Your task to perform on an android device: Clear all items from cart on ebay. Add "logitech g pro" to the cart on ebay, then select checkout. Image 0: 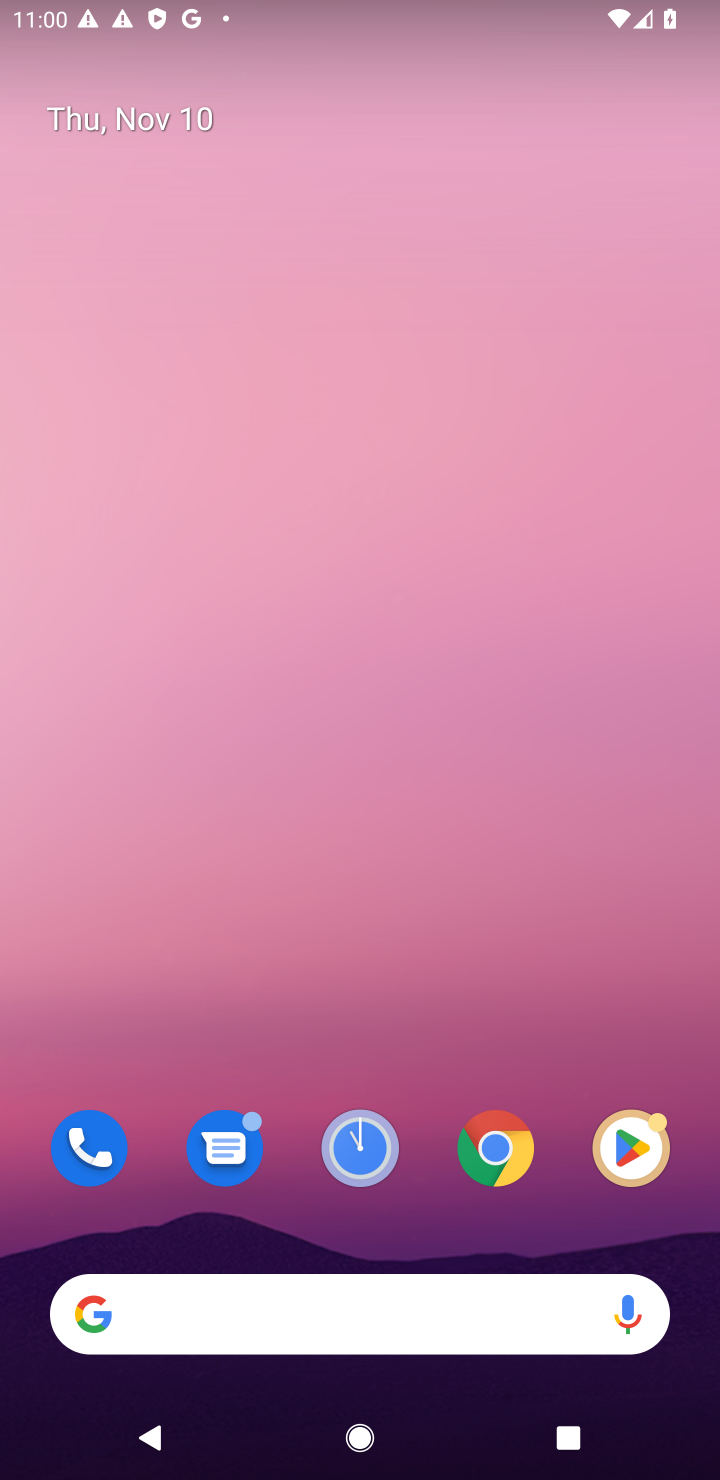
Step 0: click (520, 1131)
Your task to perform on an android device: Clear all items from cart on ebay. Add "logitech g pro" to the cart on ebay, then select checkout. Image 1: 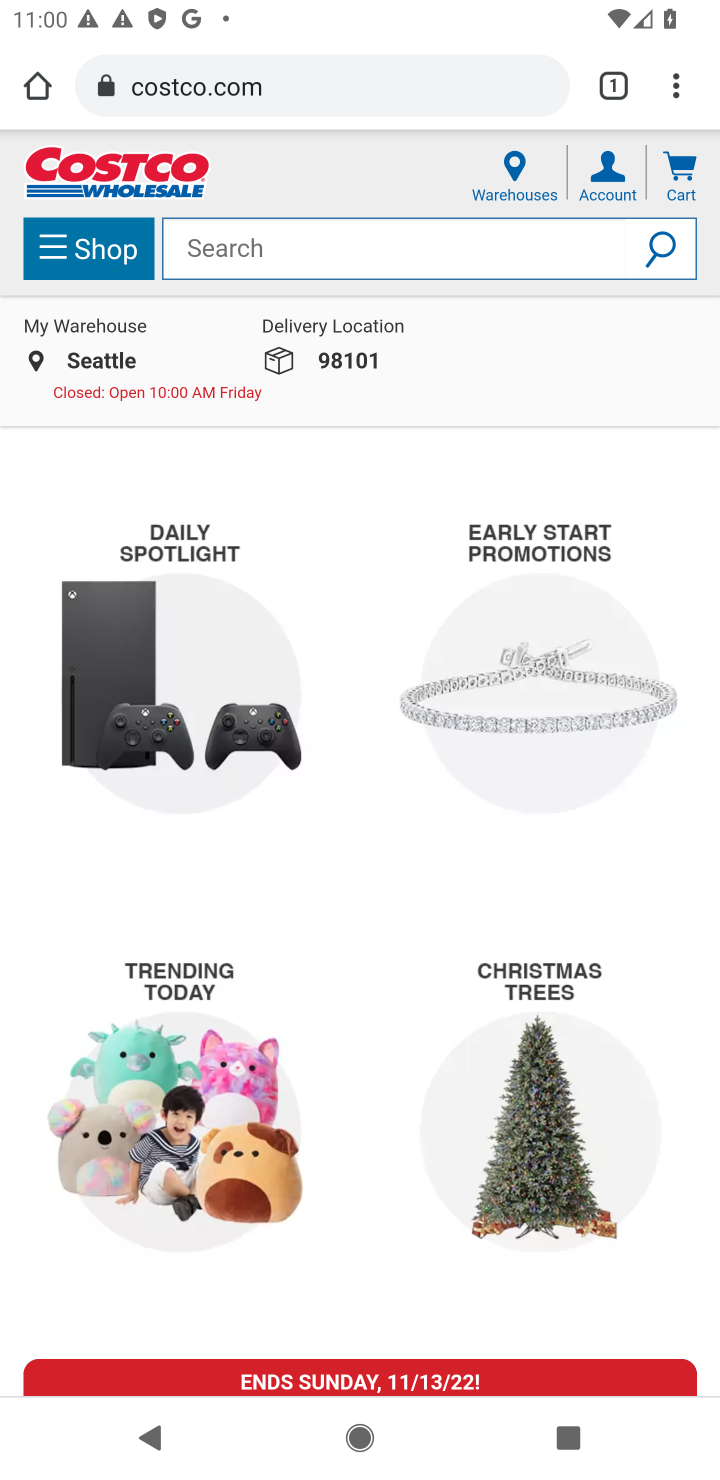
Step 1: click (610, 65)
Your task to perform on an android device: Clear all items from cart on ebay. Add "logitech g pro" to the cart on ebay, then select checkout. Image 2: 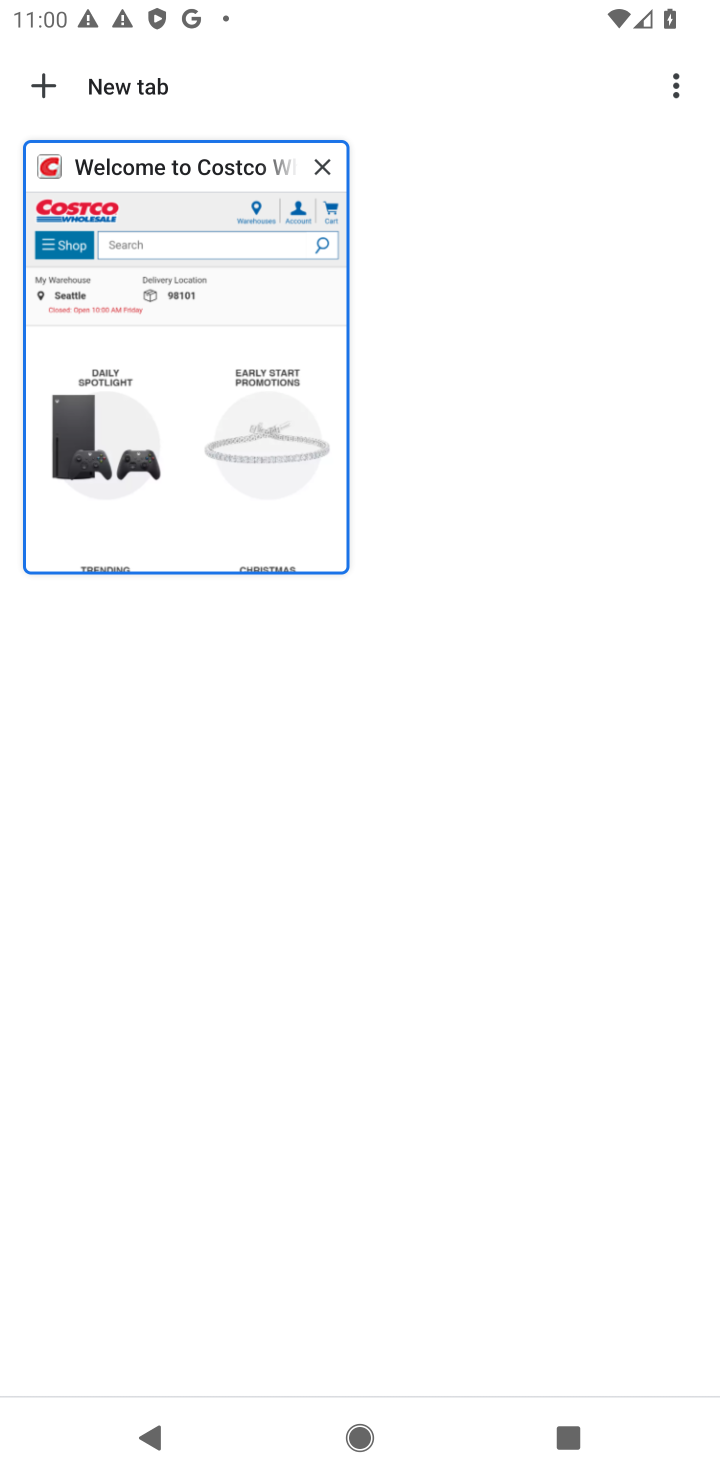
Step 2: click (46, 79)
Your task to perform on an android device: Clear all items from cart on ebay. Add "logitech g pro" to the cart on ebay, then select checkout. Image 3: 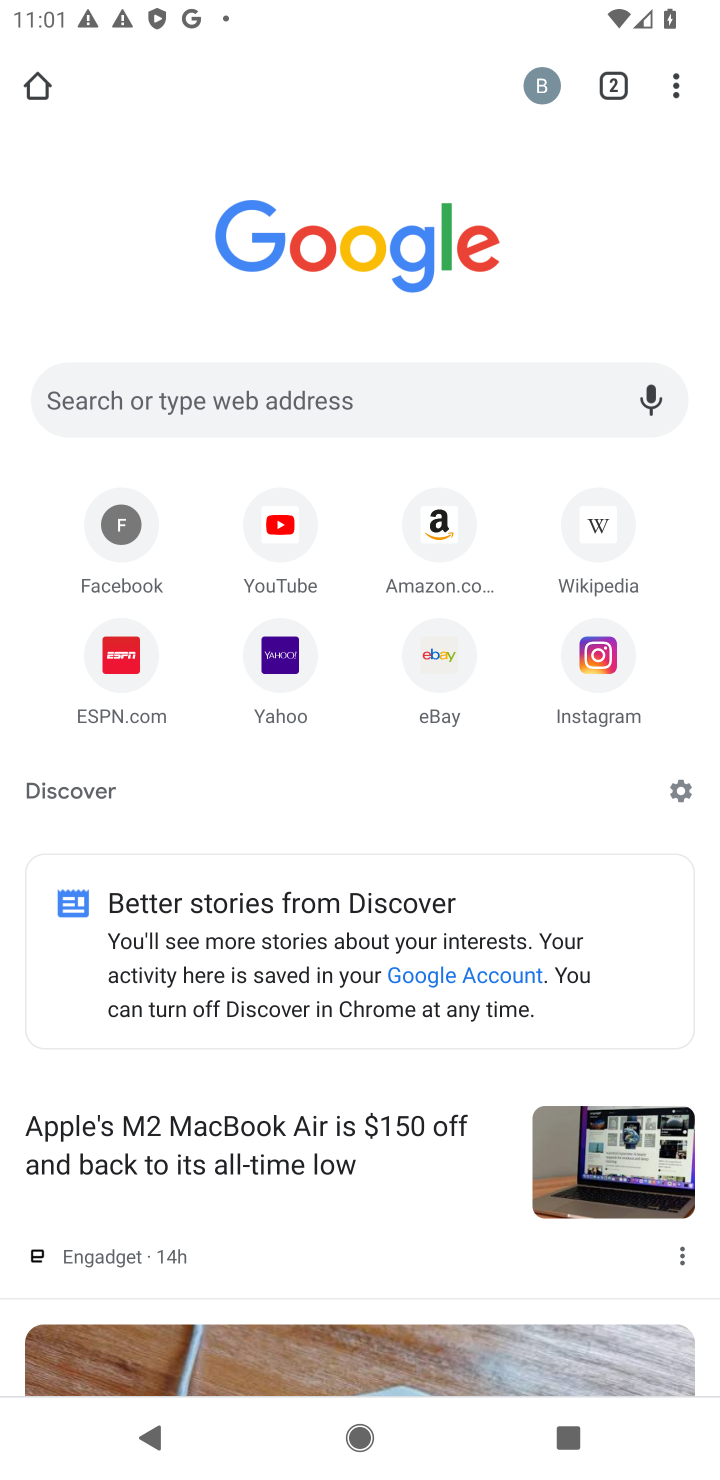
Step 3: click (445, 651)
Your task to perform on an android device: Clear all items from cart on ebay. Add "logitech g pro" to the cart on ebay, then select checkout. Image 4: 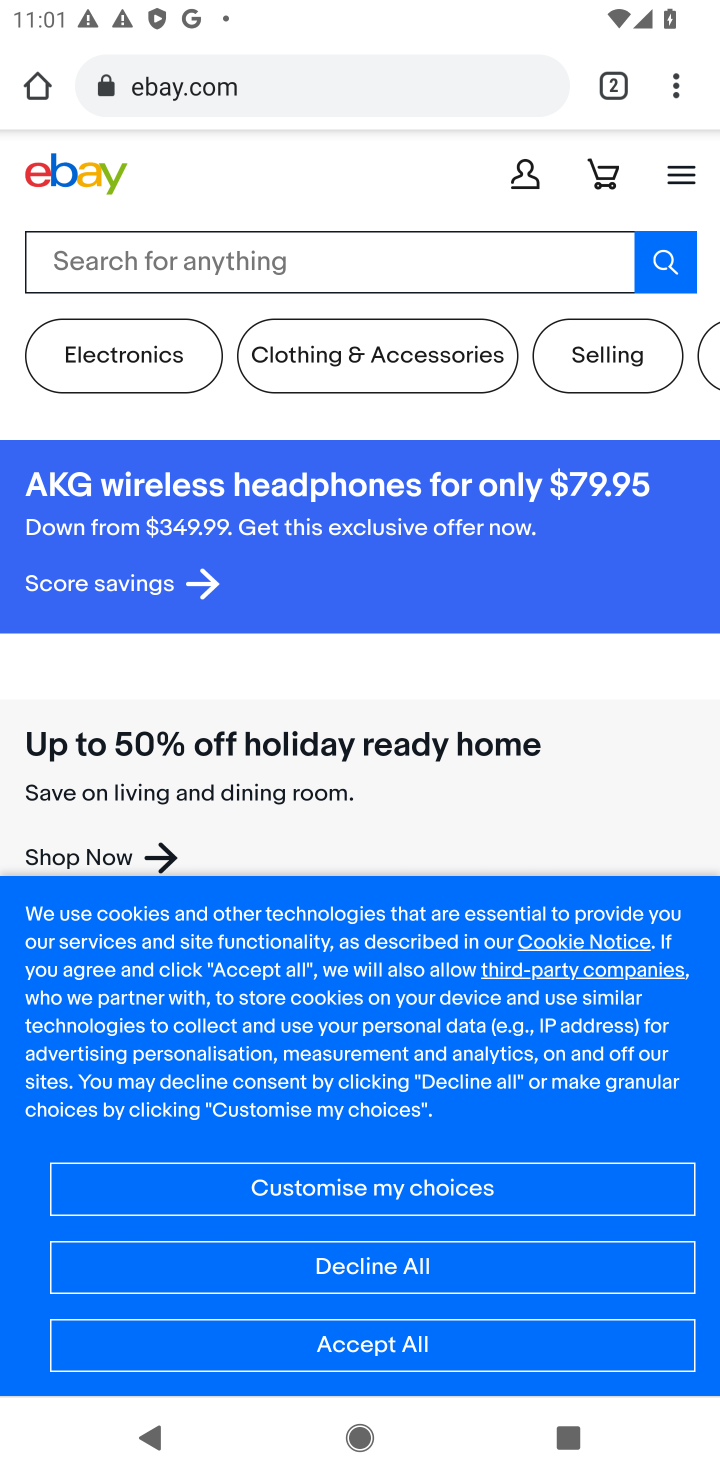
Step 4: click (360, 1260)
Your task to perform on an android device: Clear all items from cart on ebay. Add "logitech g pro" to the cart on ebay, then select checkout. Image 5: 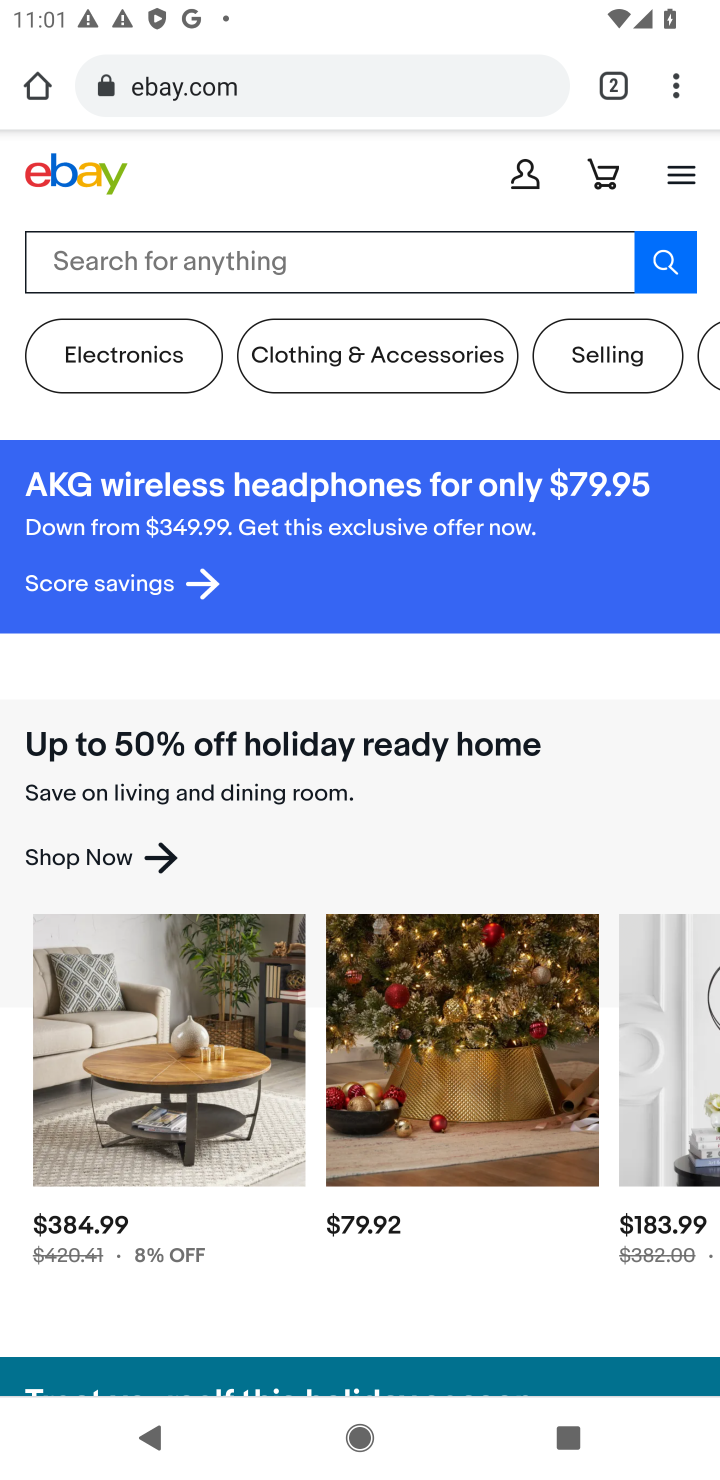
Step 5: click (97, 242)
Your task to perform on an android device: Clear all items from cart on ebay. Add "logitech g pro" to the cart on ebay, then select checkout. Image 6: 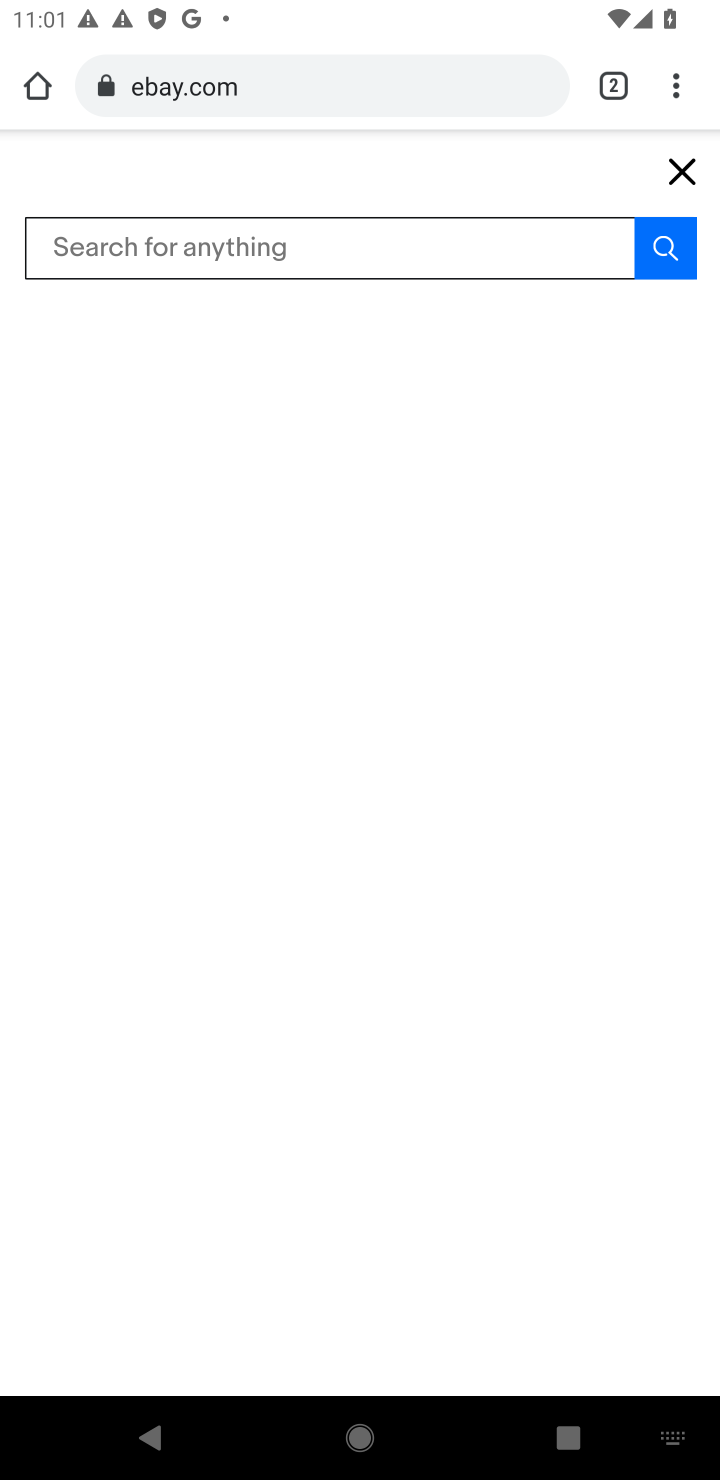
Step 6: type "logitech g pro"
Your task to perform on an android device: Clear all items from cart on ebay. Add "logitech g pro" to the cart on ebay, then select checkout. Image 7: 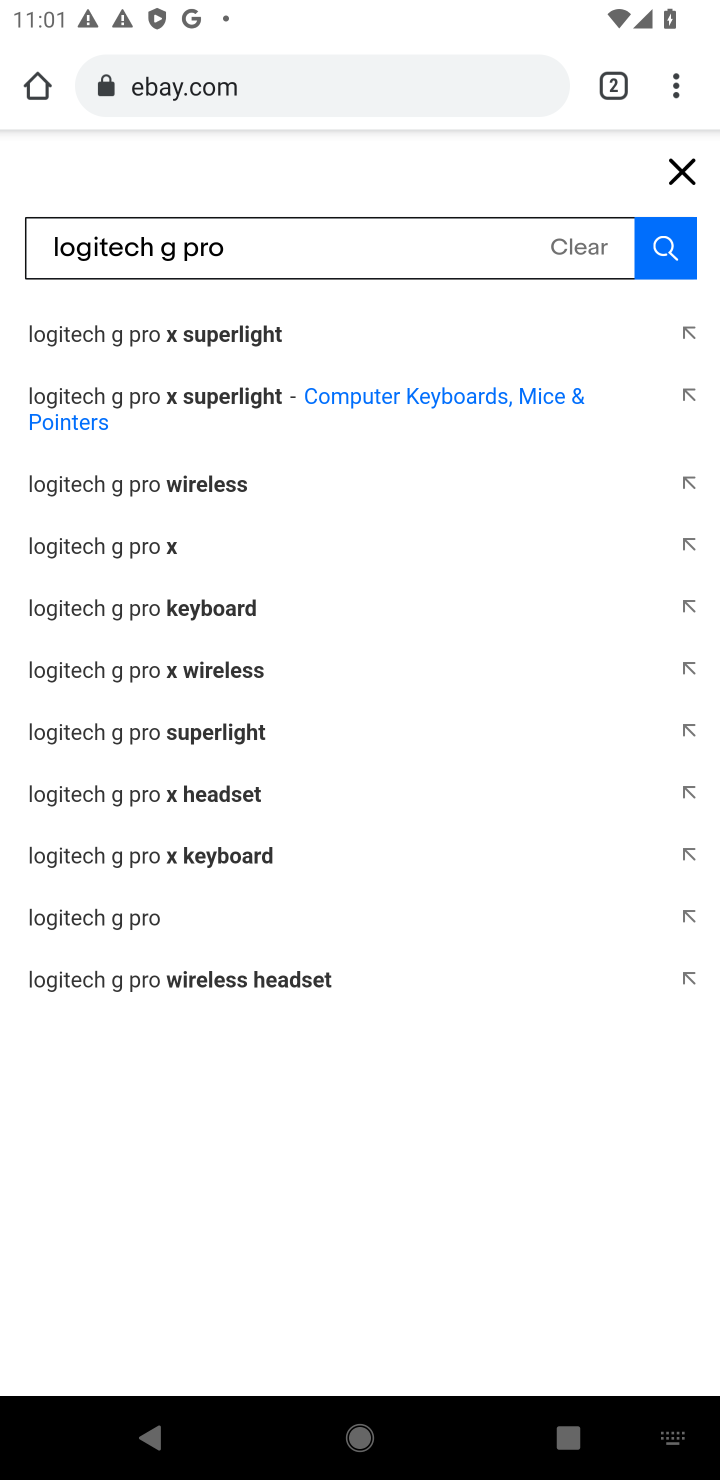
Step 7: click (680, 242)
Your task to perform on an android device: Clear all items from cart on ebay. Add "logitech g pro" to the cart on ebay, then select checkout. Image 8: 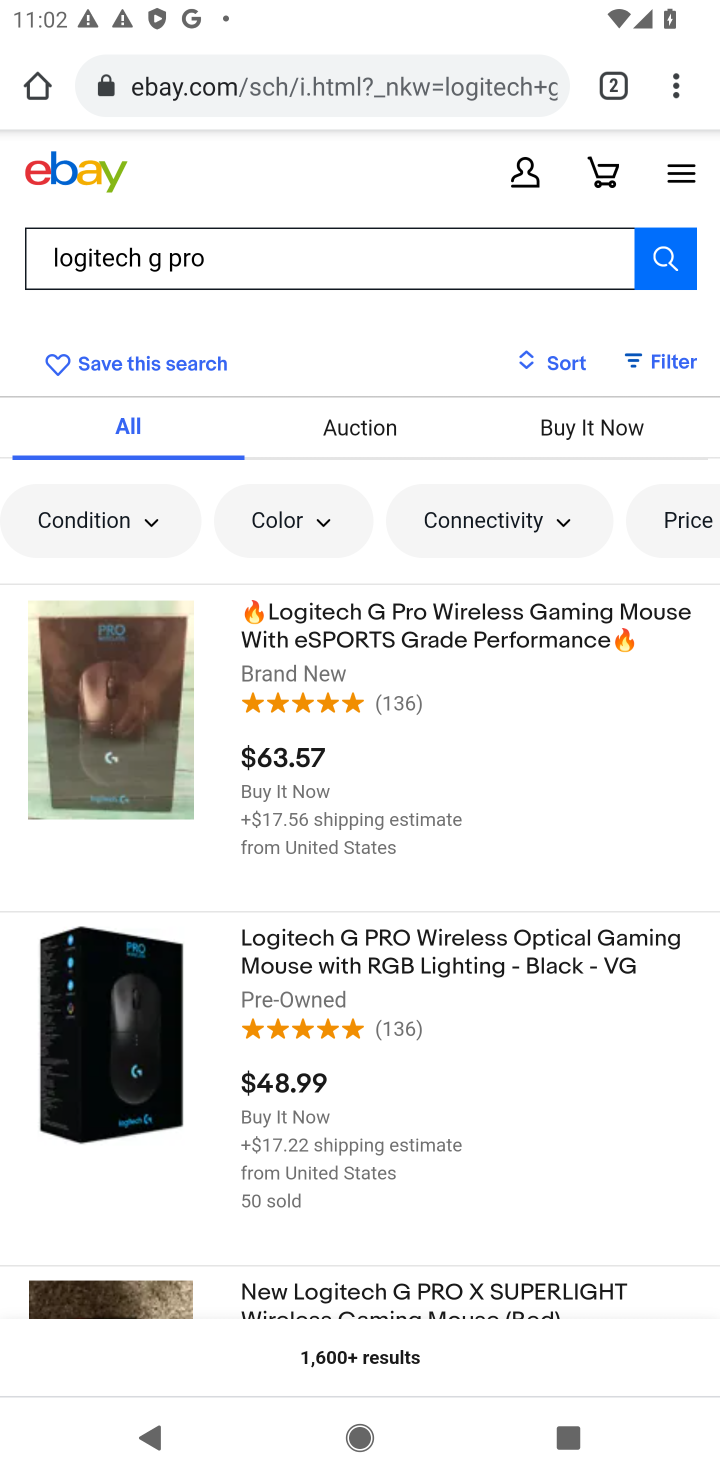
Step 8: click (441, 614)
Your task to perform on an android device: Clear all items from cart on ebay. Add "logitech g pro" to the cart on ebay, then select checkout. Image 9: 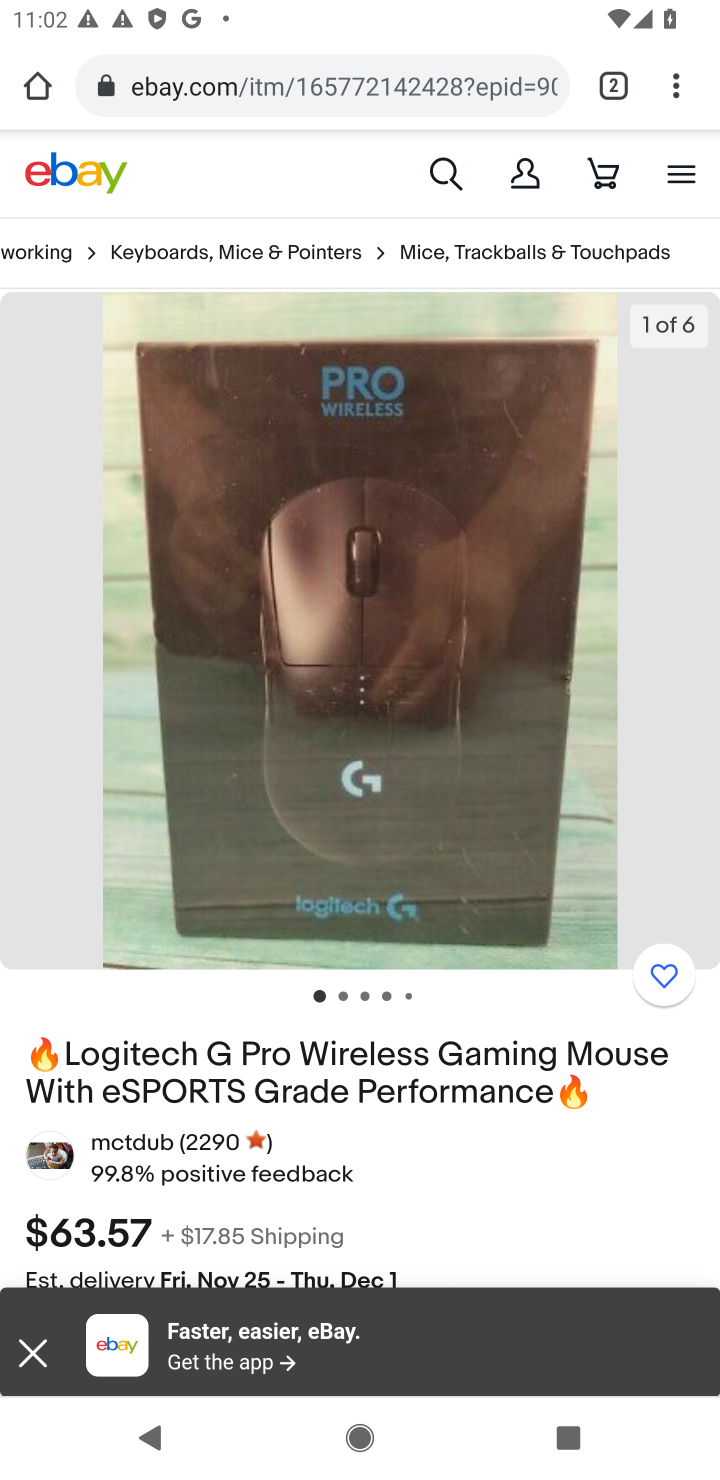
Step 9: drag from (480, 1172) to (486, 534)
Your task to perform on an android device: Clear all items from cart on ebay. Add "logitech g pro" to the cart on ebay, then select checkout. Image 10: 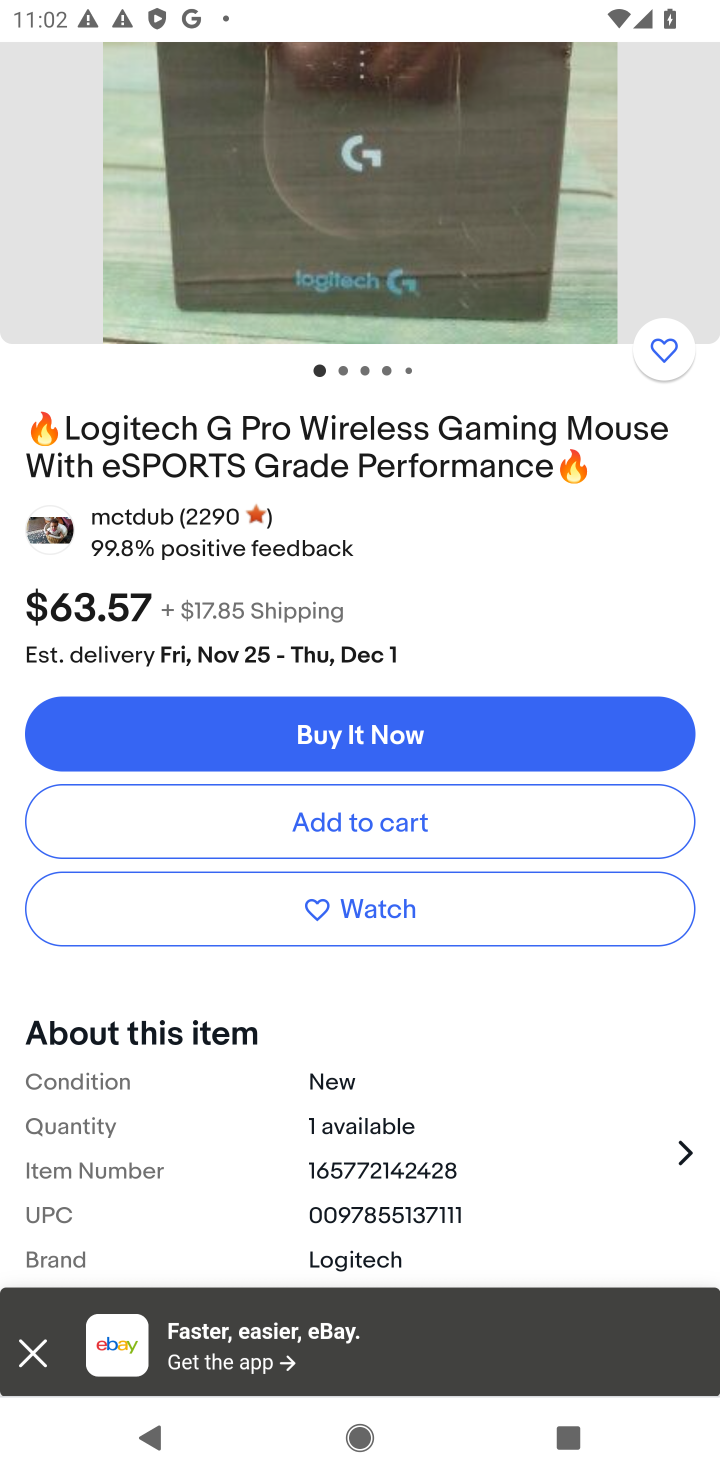
Step 10: click (352, 825)
Your task to perform on an android device: Clear all items from cart on ebay. Add "logitech g pro" to the cart on ebay, then select checkout. Image 11: 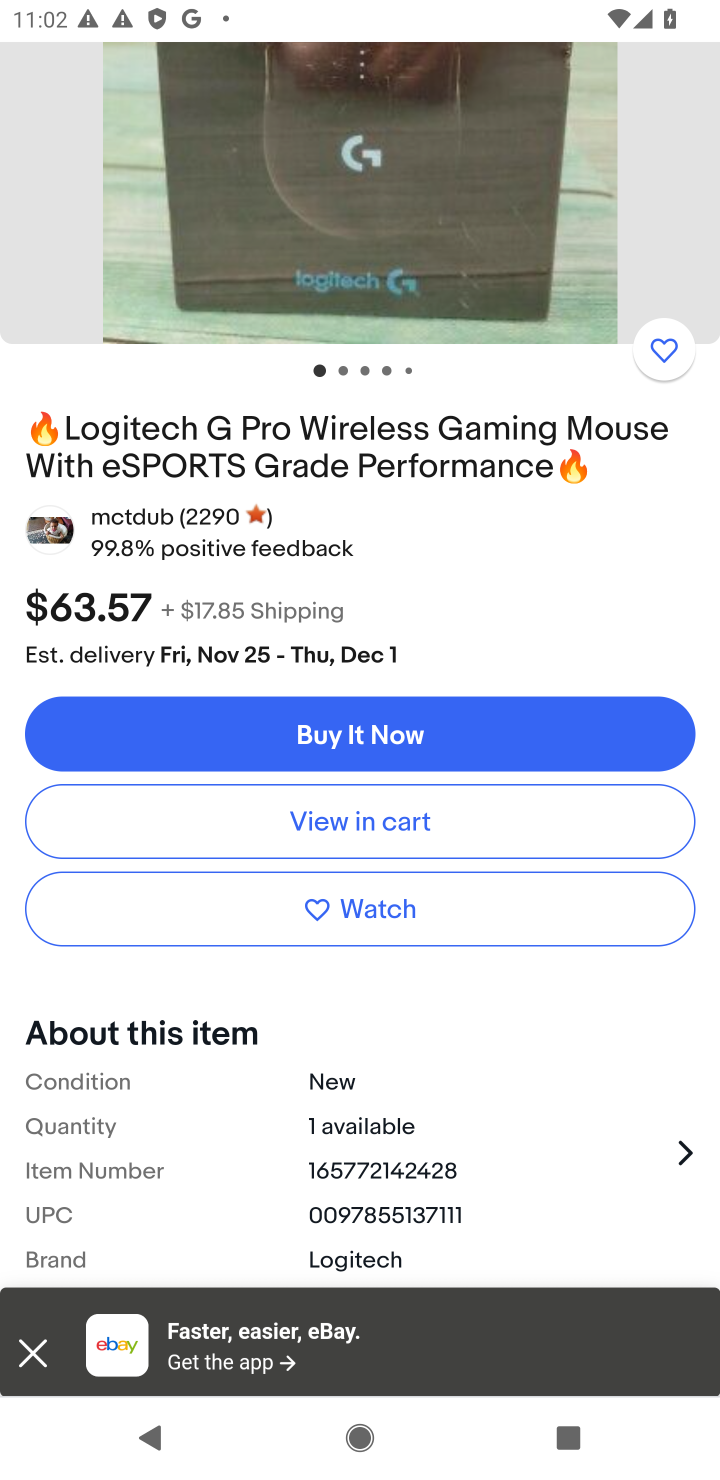
Step 11: click (352, 825)
Your task to perform on an android device: Clear all items from cart on ebay. Add "logitech g pro" to the cart on ebay, then select checkout. Image 12: 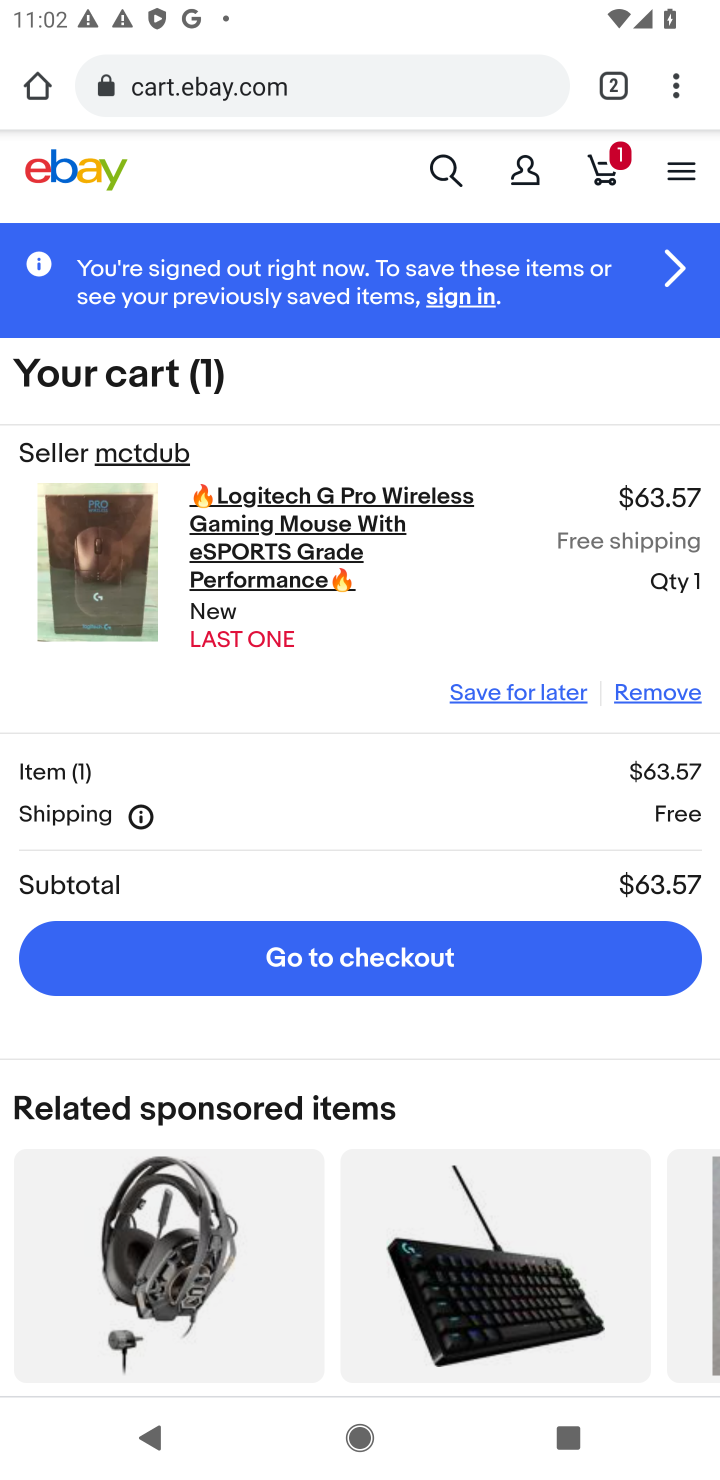
Step 12: click (340, 969)
Your task to perform on an android device: Clear all items from cart on ebay. Add "logitech g pro" to the cart on ebay, then select checkout. Image 13: 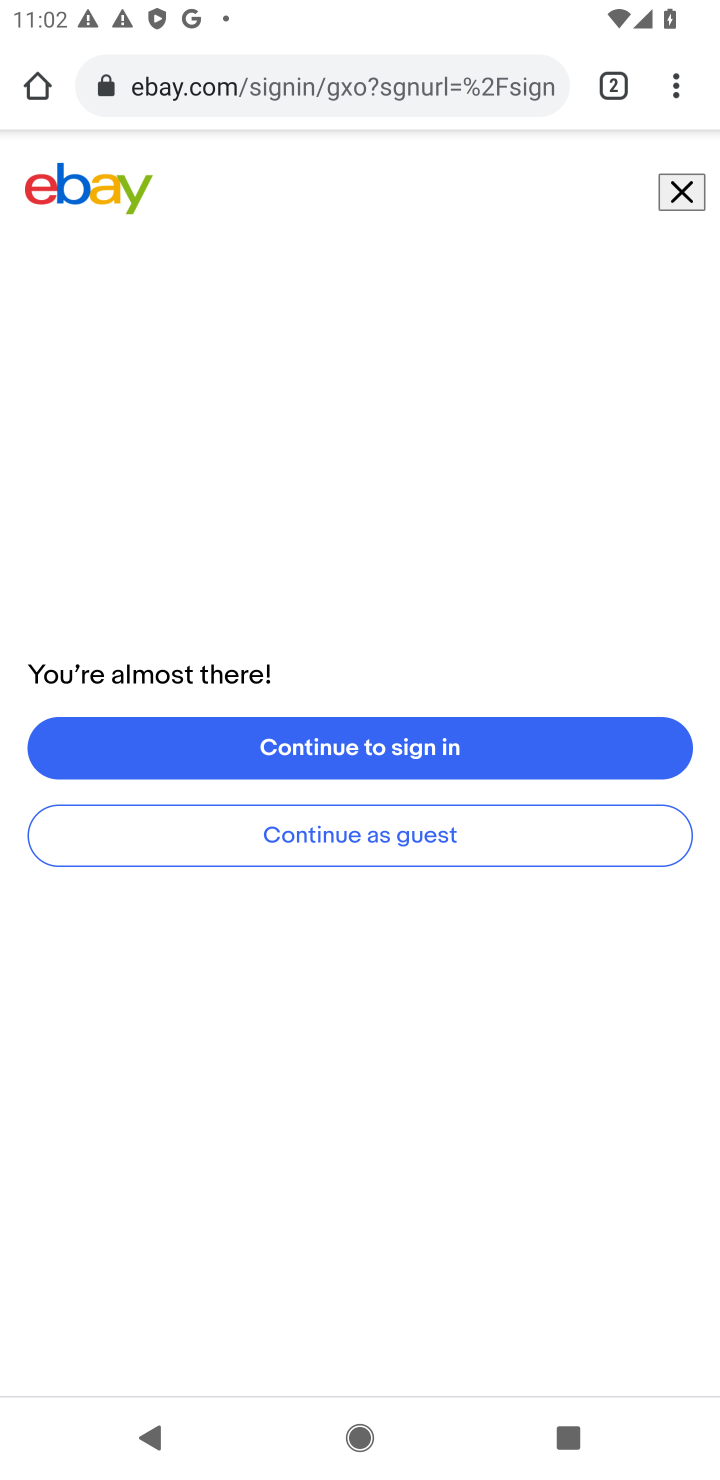
Step 13: task complete